Your task to perform on an android device: change your default location settings in chrome Image 0: 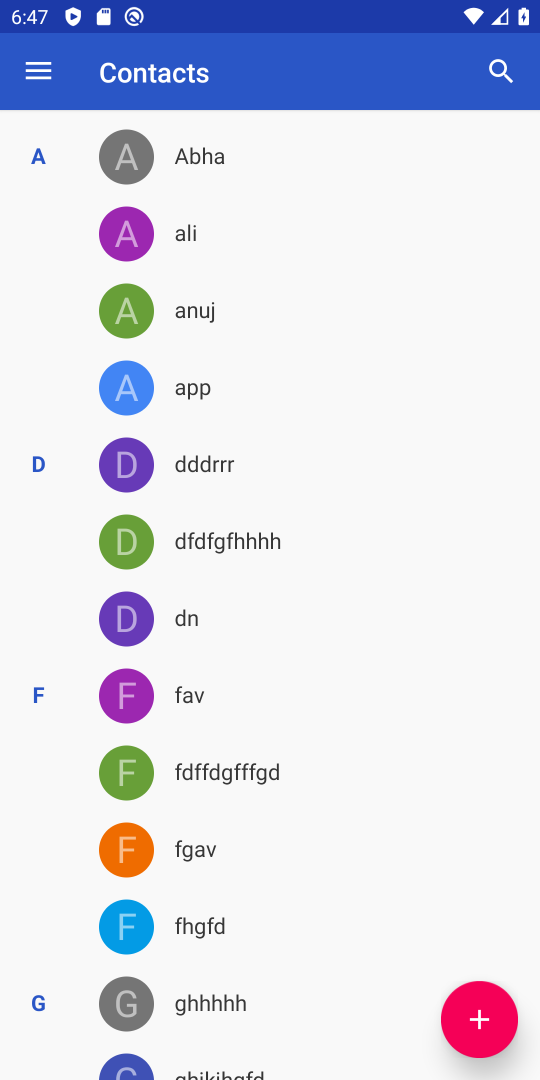
Step 0: press home button
Your task to perform on an android device: change your default location settings in chrome Image 1: 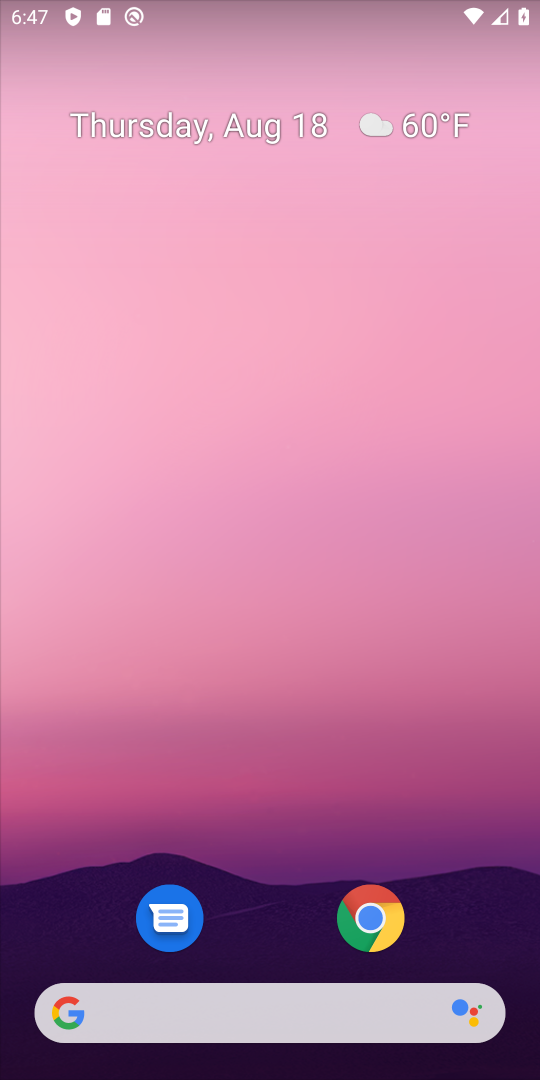
Step 1: click (378, 923)
Your task to perform on an android device: change your default location settings in chrome Image 2: 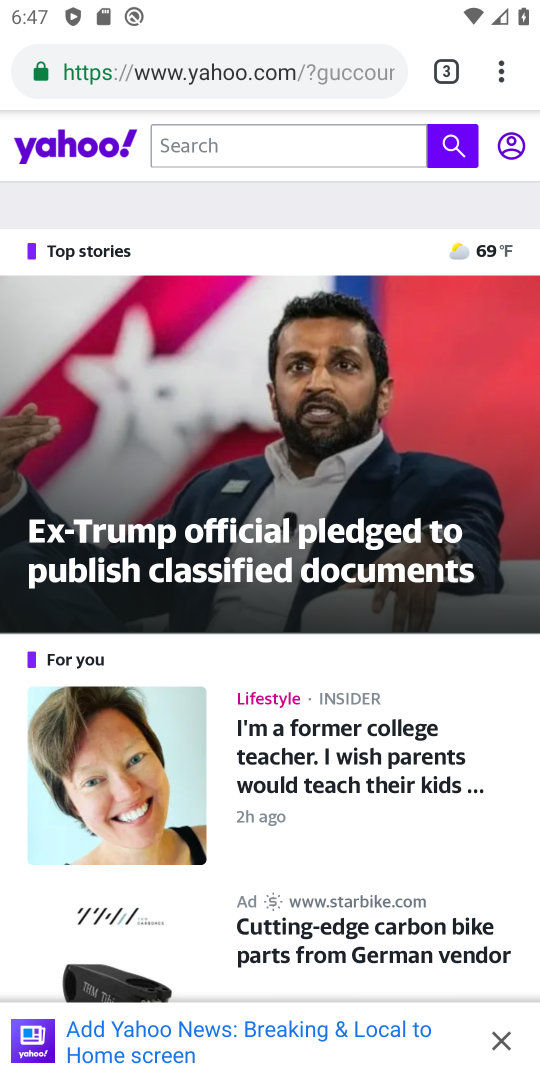
Step 2: drag from (499, 78) to (225, 856)
Your task to perform on an android device: change your default location settings in chrome Image 3: 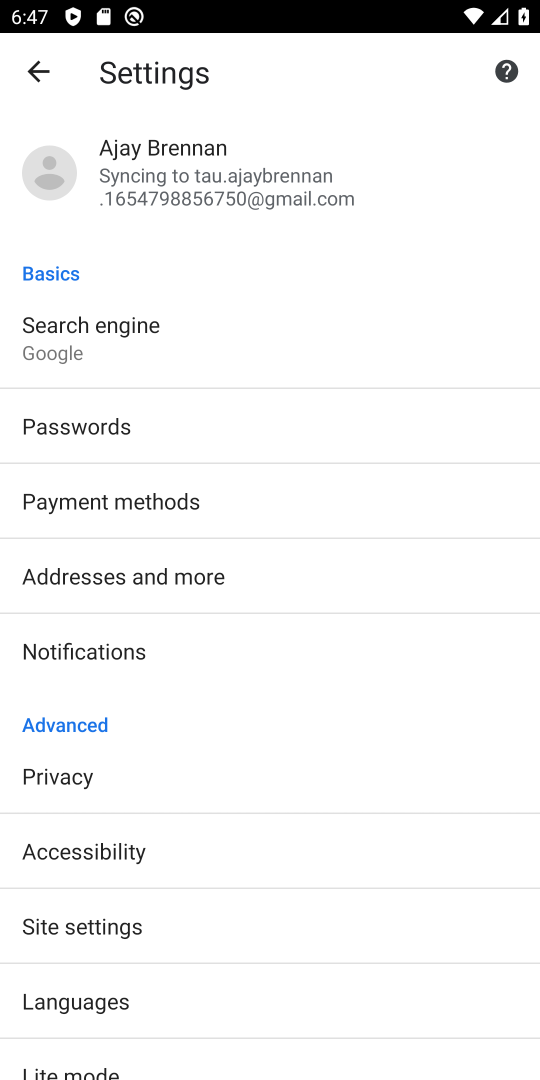
Step 3: click (89, 934)
Your task to perform on an android device: change your default location settings in chrome Image 4: 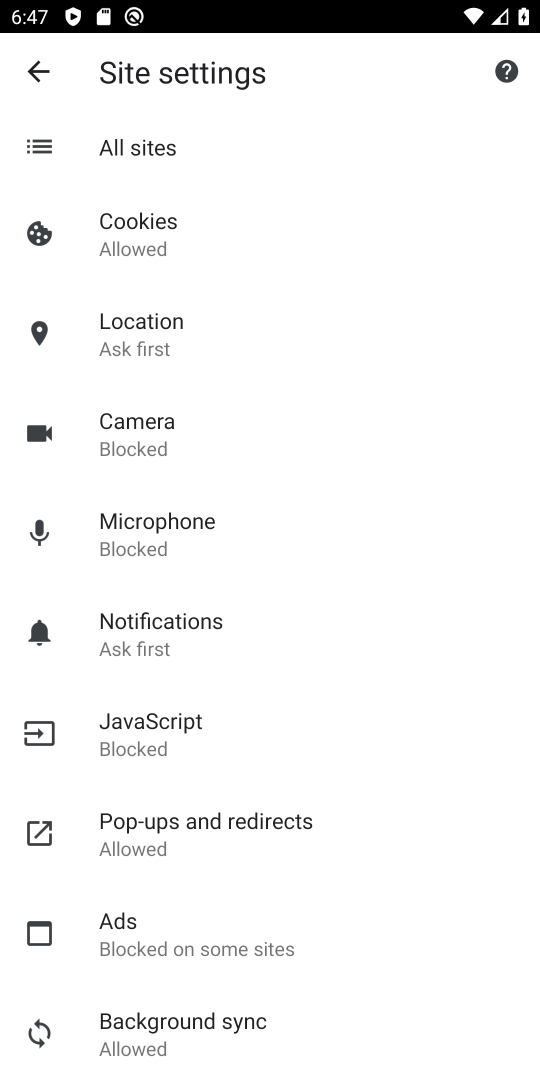
Step 4: click (136, 332)
Your task to perform on an android device: change your default location settings in chrome Image 5: 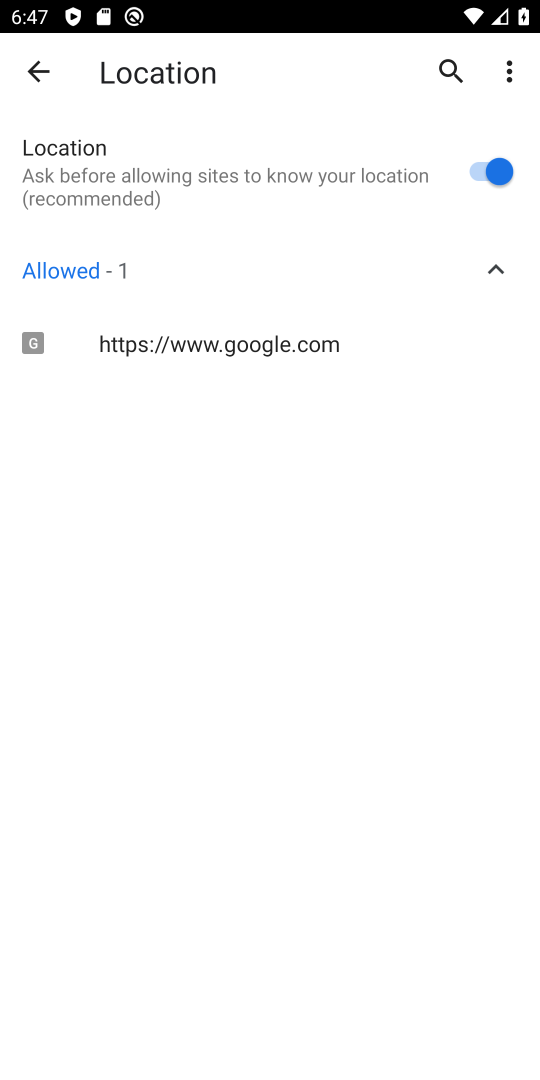
Step 5: click (498, 171)
Your task to perform on an android device: change your default location settings in chrome Image 6: 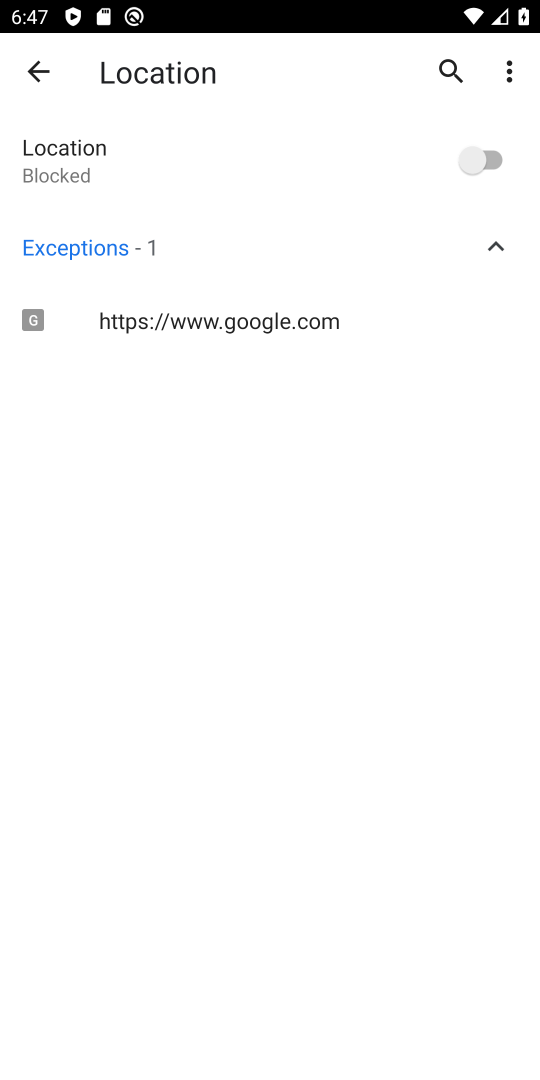
Step 6: task complete